Your task to perform on an android device: move an email to a new category in the gmail app Image 0: 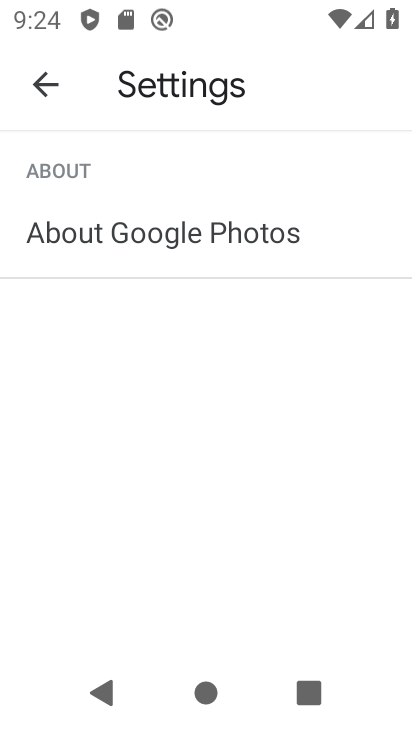
Step 0: press home button
Your task to perform on an android device: move an email to a new category in the gmail app Image 1: 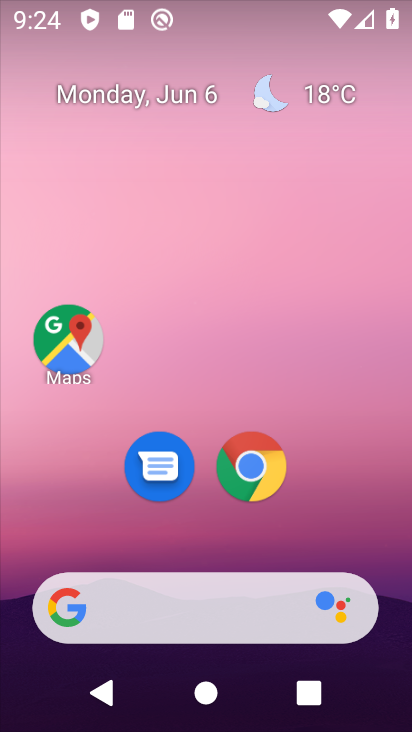
Step 1: drag from (191, 542) to (211, 8)
Your task to perform on an android device: move an email to a new category in the gmail app Image 2: 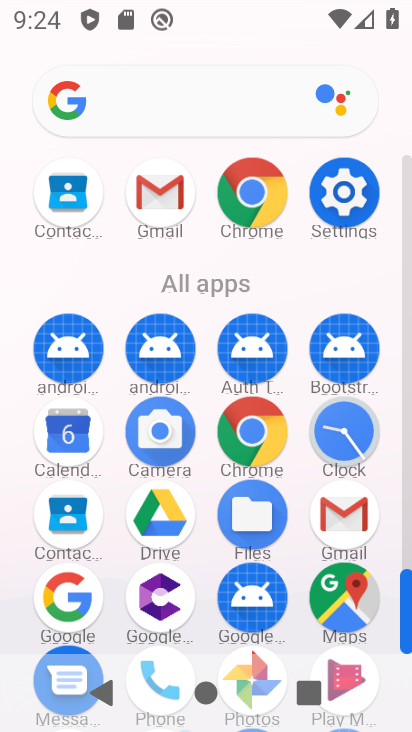
Step 2: click (168, 192)
Your task to perform on an android device: move an email to a new category in the gmail app Image 3: 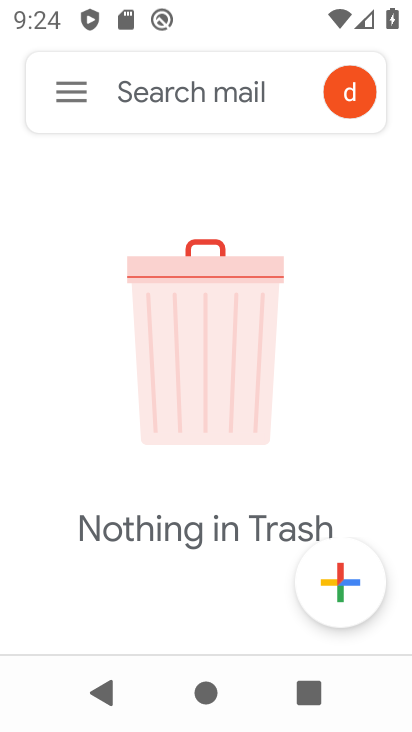
Step 3: click (73, 99)
Your task to perform on an android device: move an email to a new category in the gmail app Image 4: 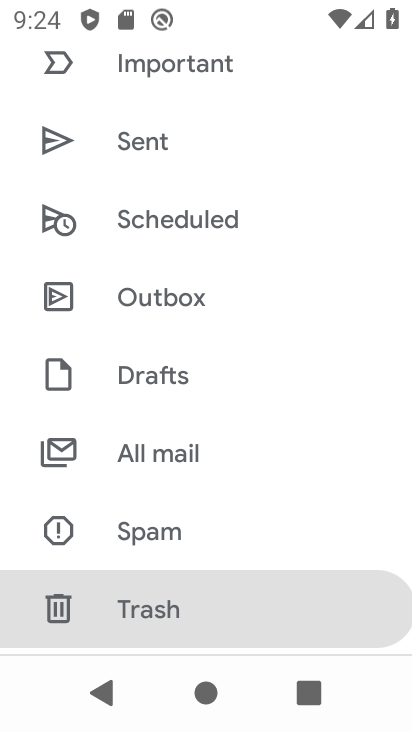
Step 4: drag from (208, 556) to (209, 247)
Your task to perform on an android device: move an email to a new category in the gmail app Image 5: 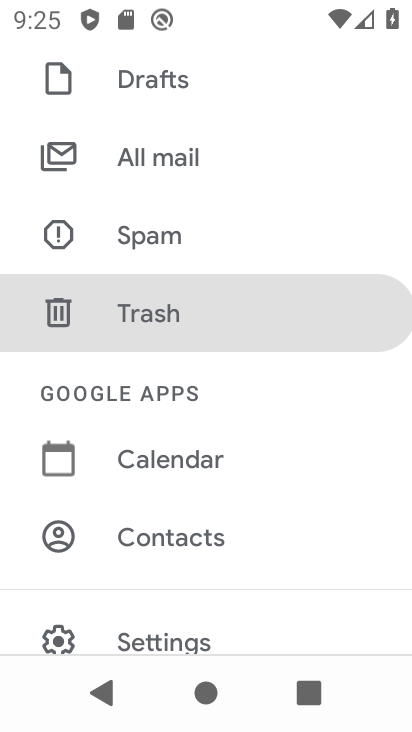
Step 5: drag from (151, 171) to (144, 502)
Your task to perform on an android device: move an email to a new category in the gmail app Image 6: 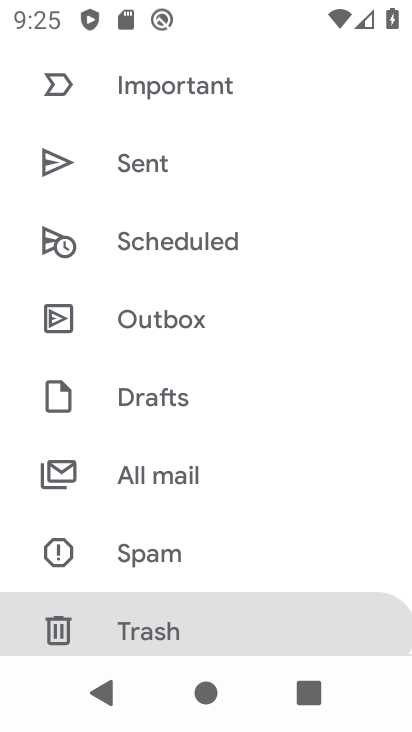
Step 6: drag from (156, 341) to (129, 621)
Your task to perform on an android device: move an email to a new category in the gmail app Image 7: 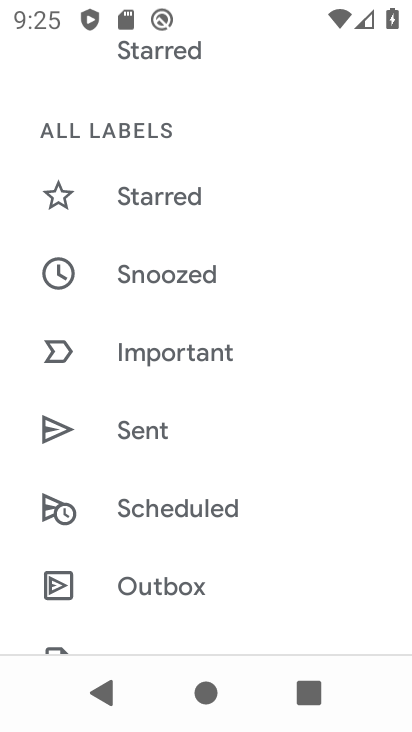
Step 7: press back button
Your task to perform on an android device: move an email to a new category in the gmail app Image 8: 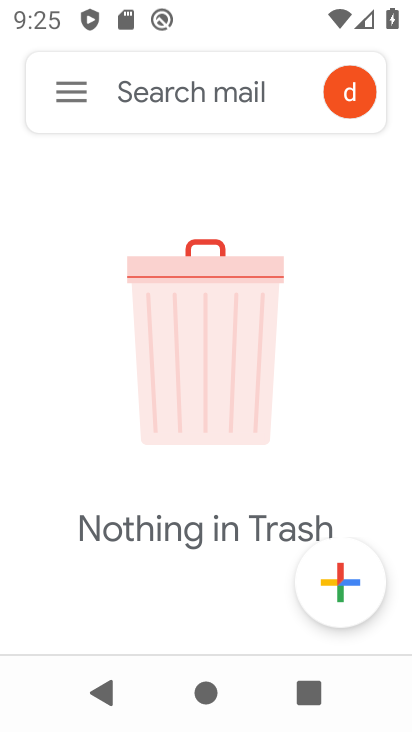
Step 8: click (73, 102)
Your task to perform on an android device: move an email to a new category in the gmail app Image 9: 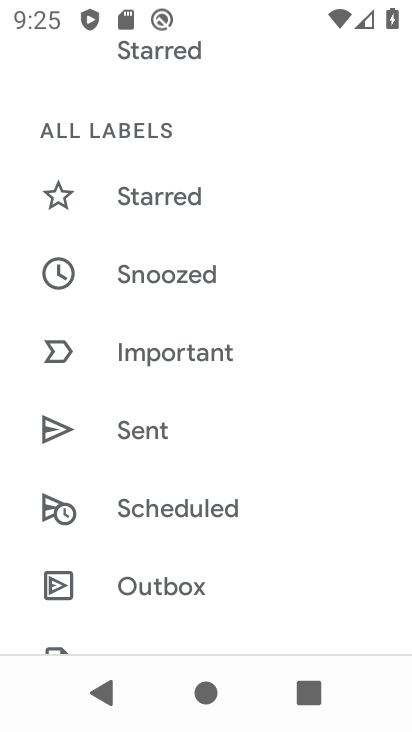
Step 9: drag from (205, 280) to (207, 698)
Your task to perform on an android device: move an email to a new category in the gmail app Image 10: 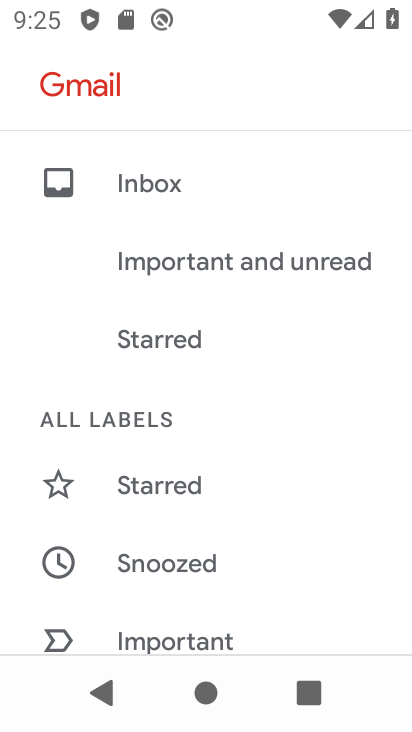
Step 10: drag from (212, 572) to (200, 310)
Your task to perform on an android device: move an email to a new category in the gmail app Image 11: 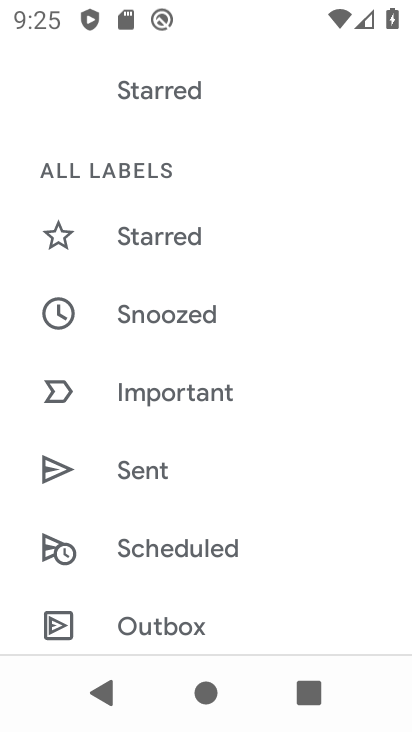
Step 11: drag from (189, 533) to (187, 139)
Your task to perform on an android device: move an email to a new category in the gmail app Image 12: 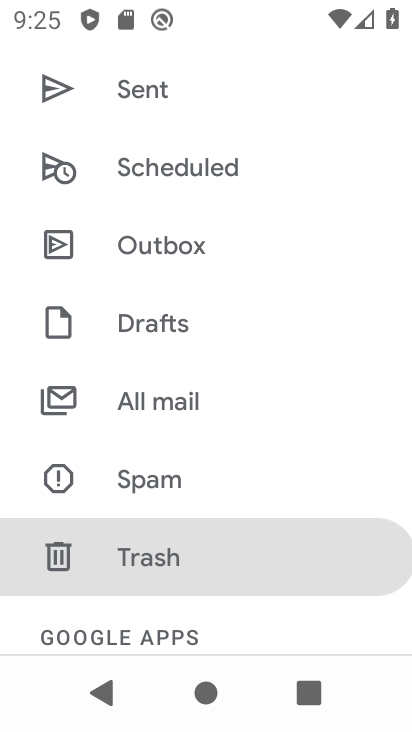
Step 12: click (177, 403)
Your task to perform on an android device: move an email to a new category in the gmail app Image 13: 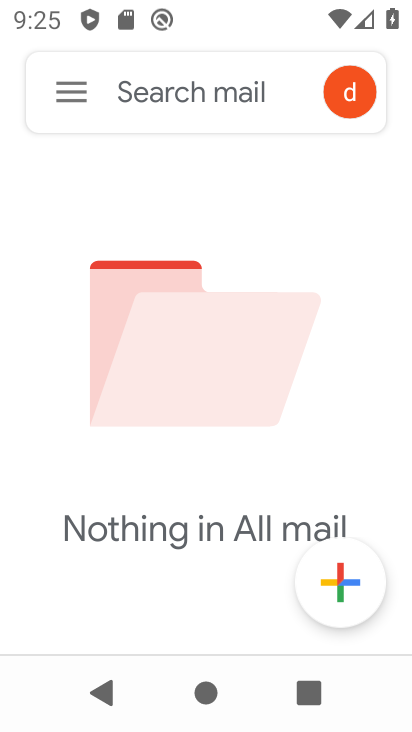
Step 13: task complete